Your task to perform on an android device: Open Youtube and go to "Your channel" Image 0: 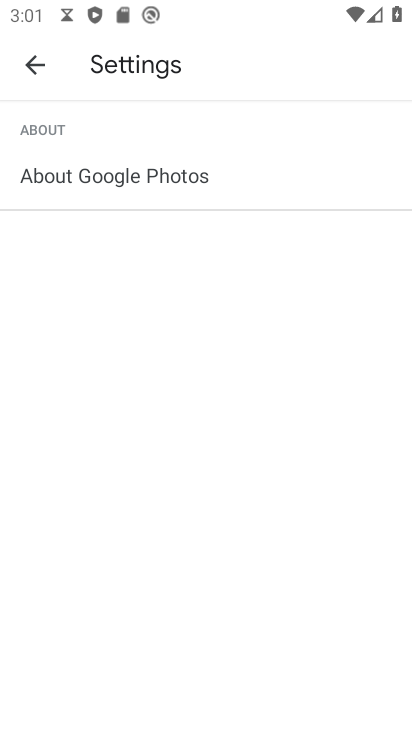
Step 0: press home button
Your task to perform on an android device: Open Youtube and go to "Your channel" Image 1: 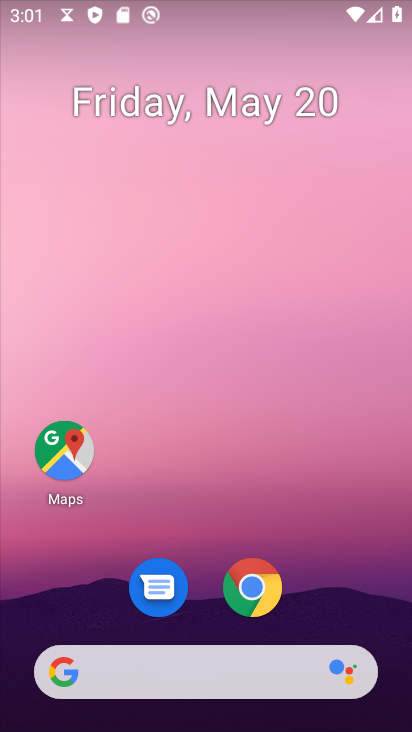
Step 1: drag from (369, 582) to (265, 87)
Your task to perform on an android device: Open Youtube and go to "Your channel" Image 2: 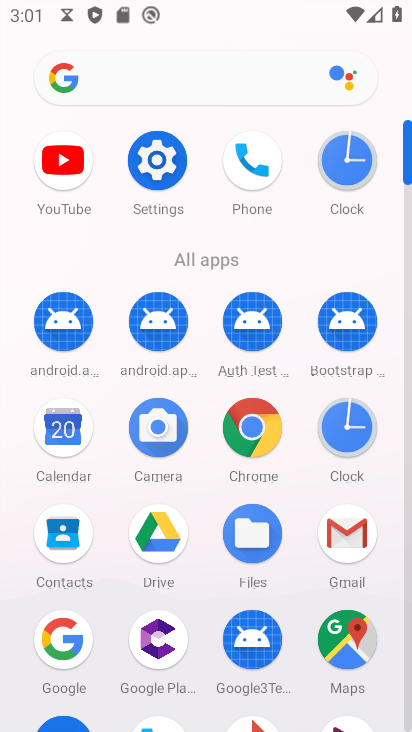
Step 2: click (65, 177)
Your task to perform on an android device: Open Youtube and go to "Your channel" Image 3: 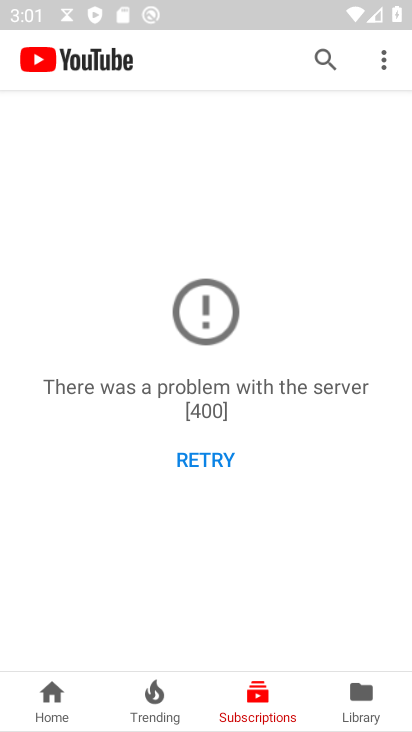
Step 3: click (384, 75)
Your task to perform on an android device: Open Youtube and go to "Your channel" Image 4: 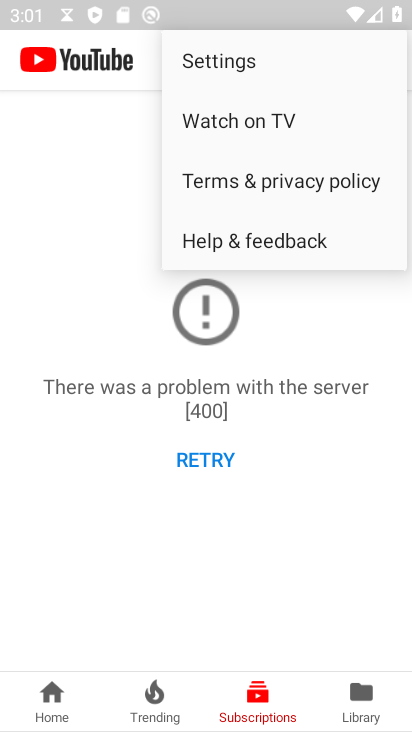
Step 4: task complete